Your task to perform on an android device: Go to settings Image 0: 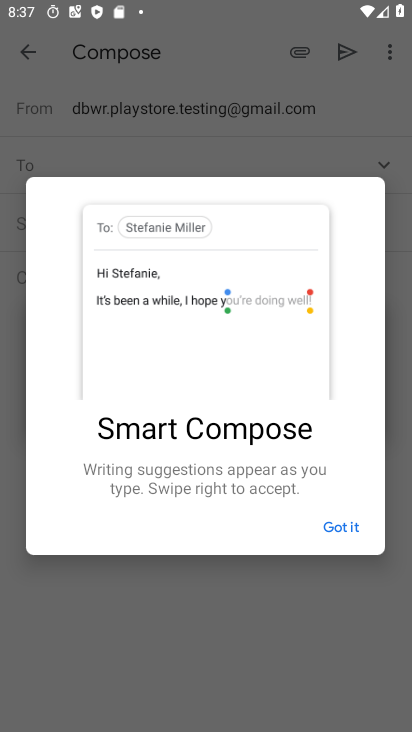
Step 0: press home button
Your task to perform on an android device: Go to settings Image 1: 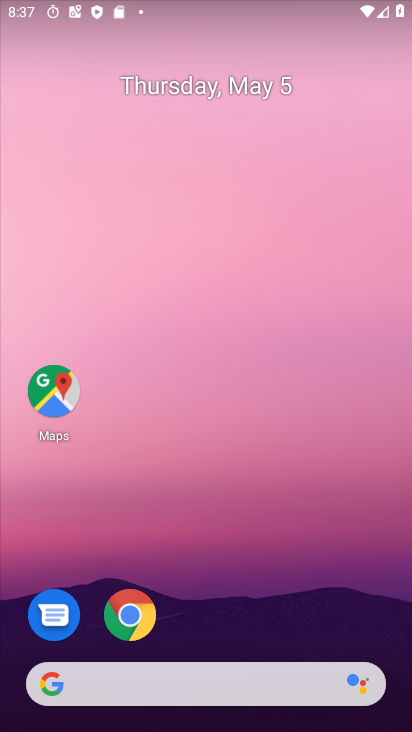
Step 1: drag from (210, 619) to (302, 1)
Your task to perform on an android device: Go to settings Image 2: 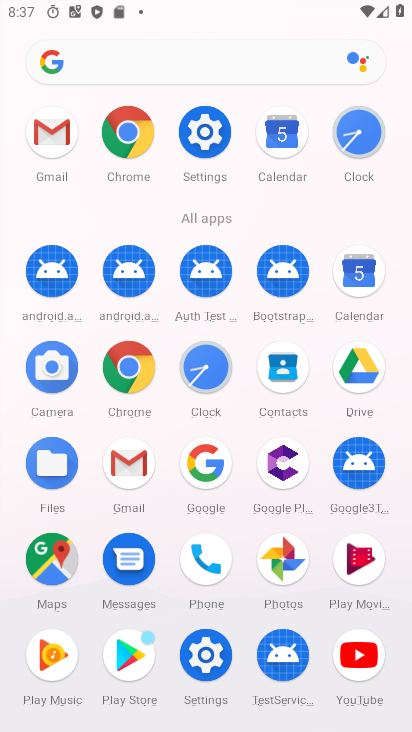
Step 2: click (207, 653)
Your task to perform on an android device: Go to settings Image 3: 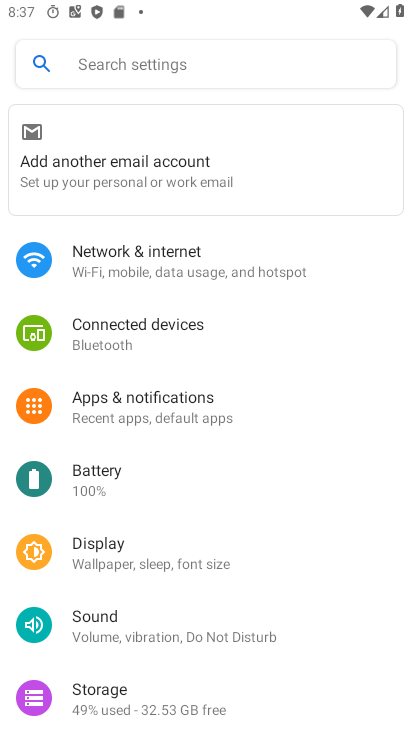
Step 3: task complete